Your task to perform on an android device: Open settings Image 0: 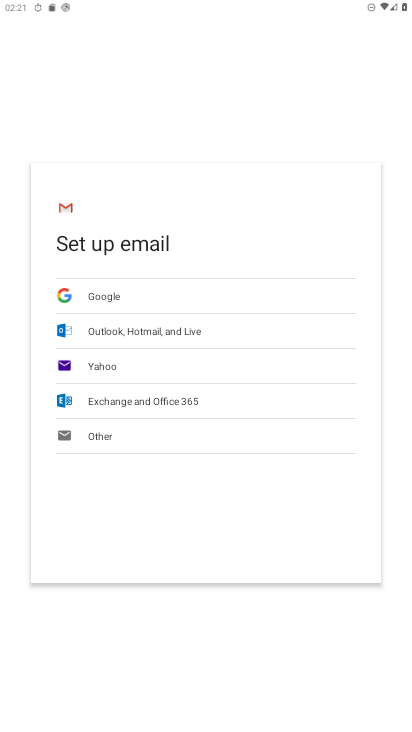
Step 0: press home button
Your task to perform on an android device: Open settings Image 1: 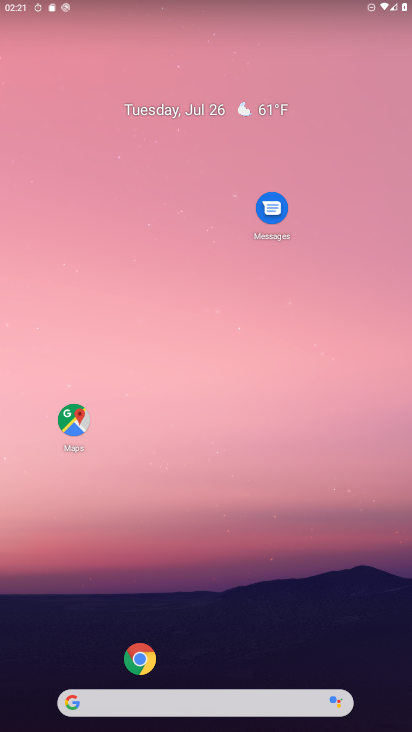
Step 1: drag from (39, 666) to (223, 102)
Your task to perform on an android device: Open settings Image 2: 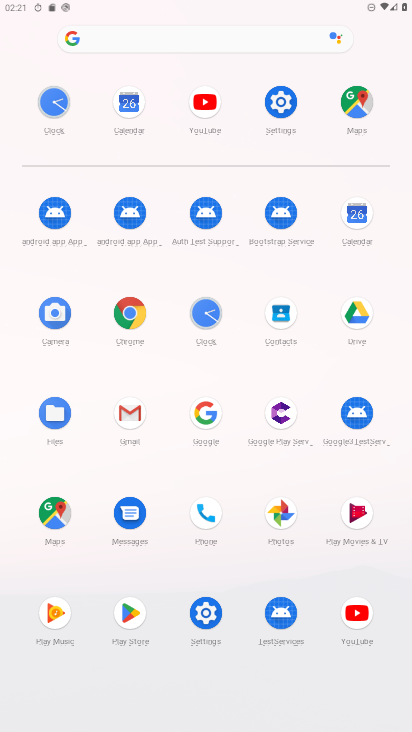
Step 2: click (191, 604)
Your task to perform on an android device: Open settings Image 3: 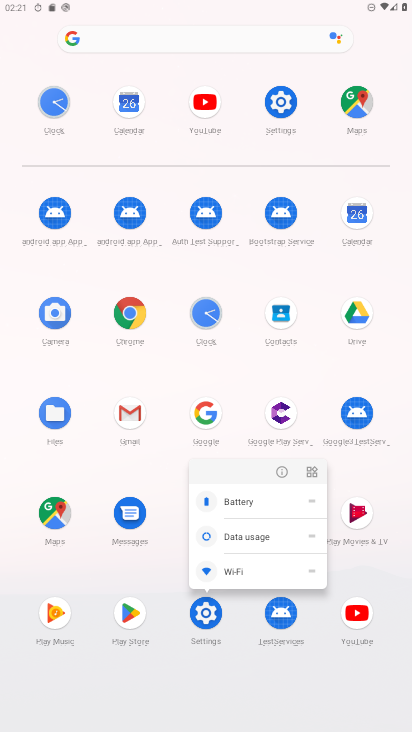
Step 3: click (211, 608)
Your task to perform on an android device: Open settings Image 4: 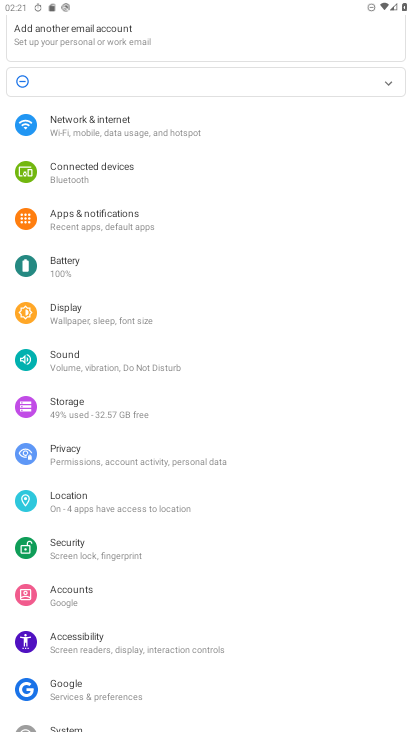
Step 4: task complete